Your task to perform on an android device: Open Google Chrome Image 0: 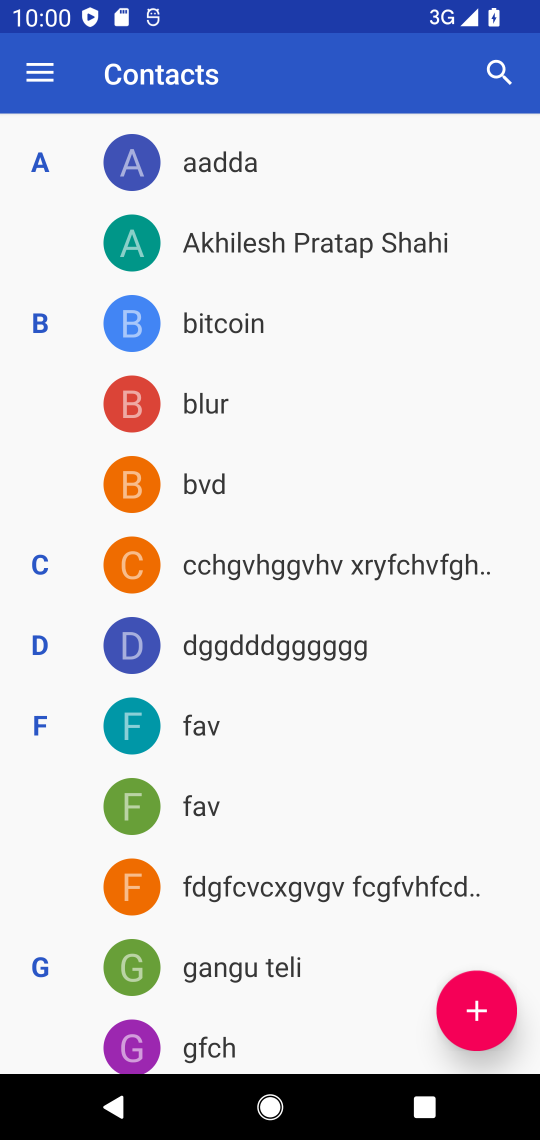
Step 0: press home button
Your task to perform on an android device: Open Google Chrome Image 1: 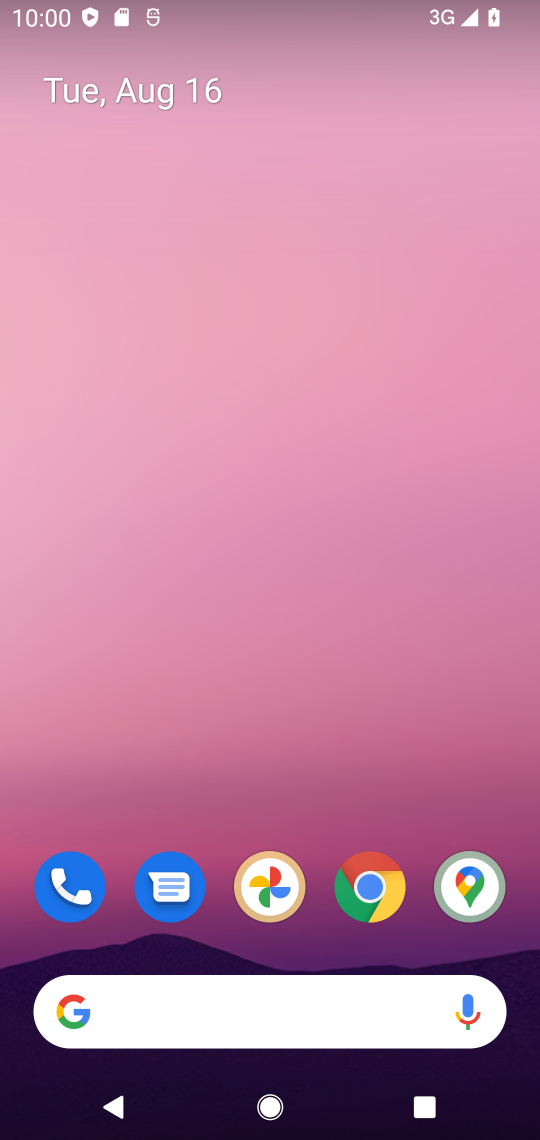
Step 1: drag from (434, 518) to (480, 144)
Your task to perform on an android device: Open Google Chrome Image 2: 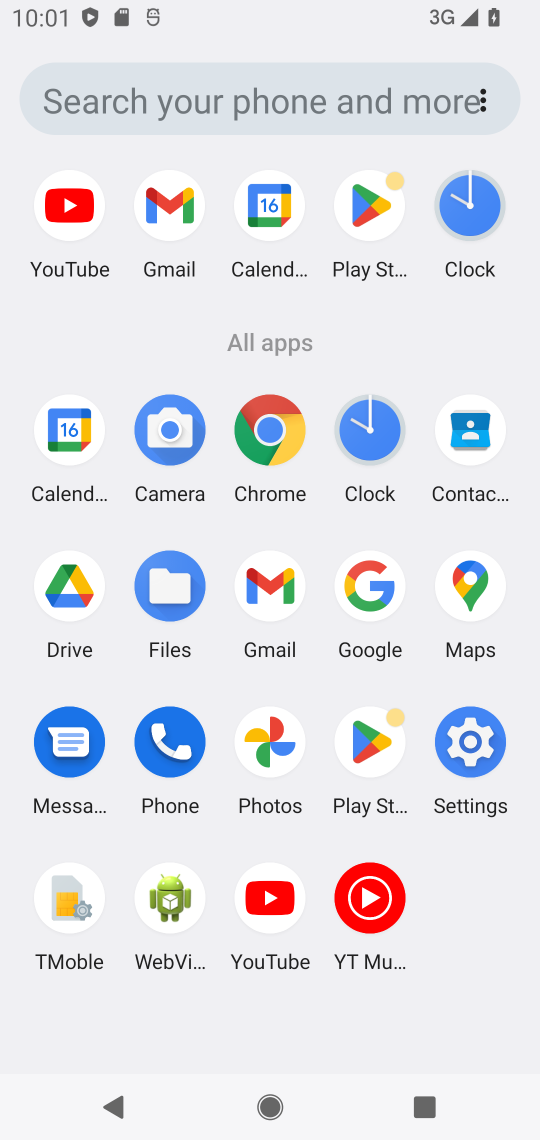
Step 2: click (267, 429)
Your task to perform on an android device: Open Google Chrome Image 3: 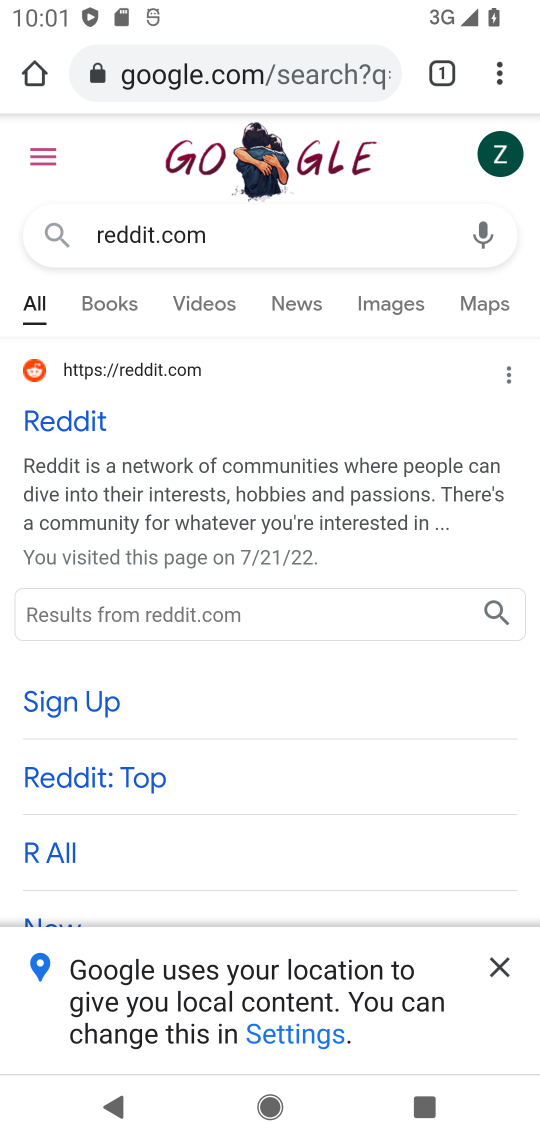
Step 3: task complete